Your task to perform on an android device: Open the phone app and click the voicemail tab. Image 0: 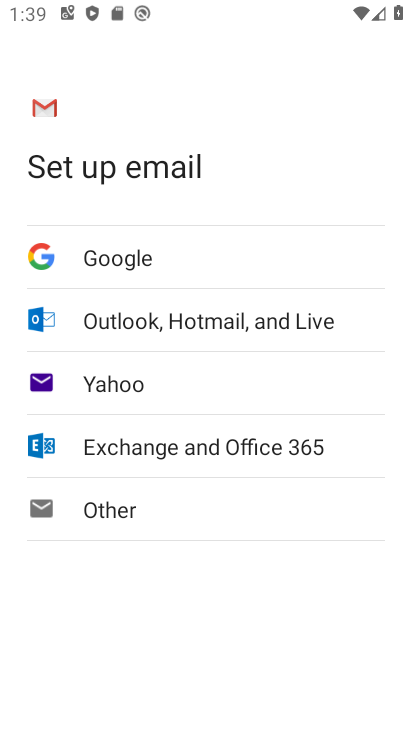
Step 0: press home button
Your task to perform on an android device: Open the phone app and click the voicemail tab. Image 1: 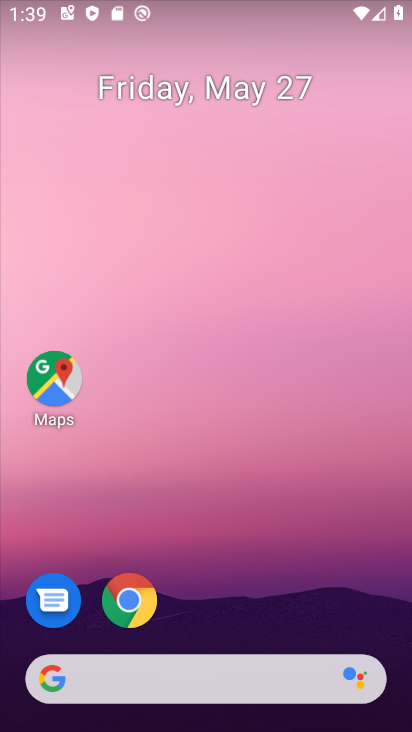
Step 1: drag from (190, 726) to (195, 42)
Your task to perform on an android device: Open the phone app and click the voicemail tab. Image 2: 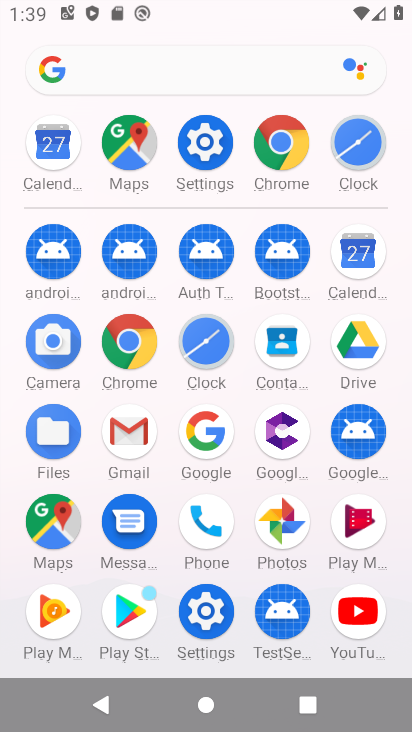
Step 2: click (201, 516)
Your task to perform on an android device: Open the phone app and click the voicemail tab. Image 3: 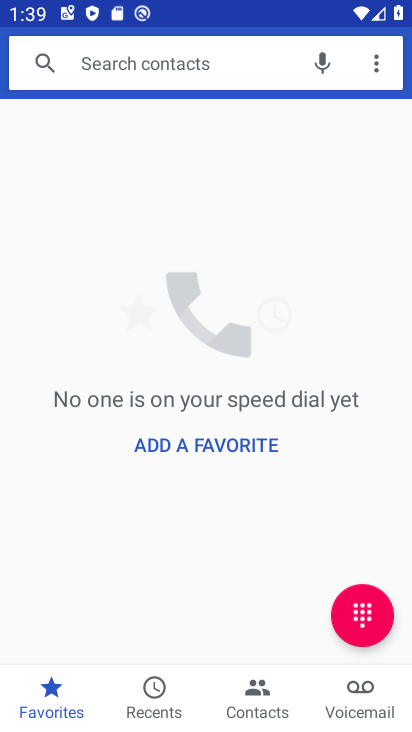
Step 3: click (360, 701)
Your task to perform on an android device: Open the phone app and click the voicemail tab. Image 4: 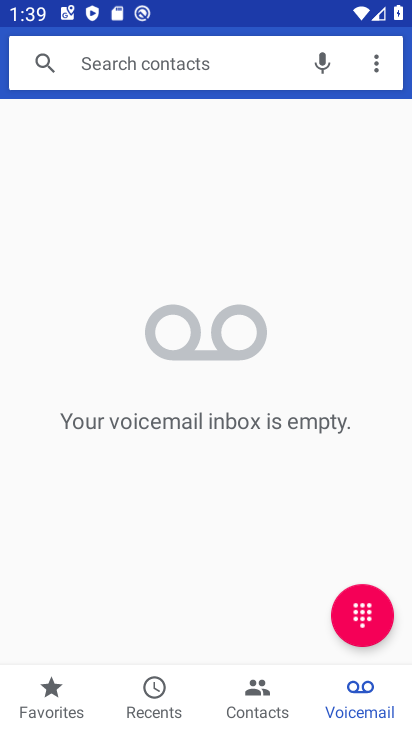
Step 4: task complete